Your task to perform on an android device: Open the phone app and click the voicemail tab. Image 0: 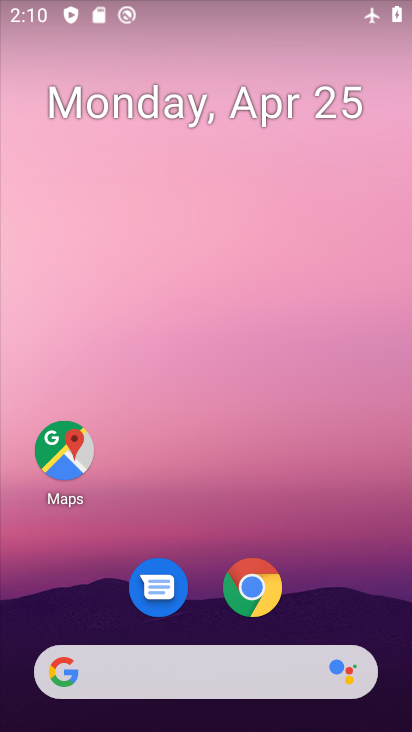
Step 0: drag from (328, 578) to (295, 161)
Your task to perform on an android device: Open the phone app and click the voicemail tab. Image 1: 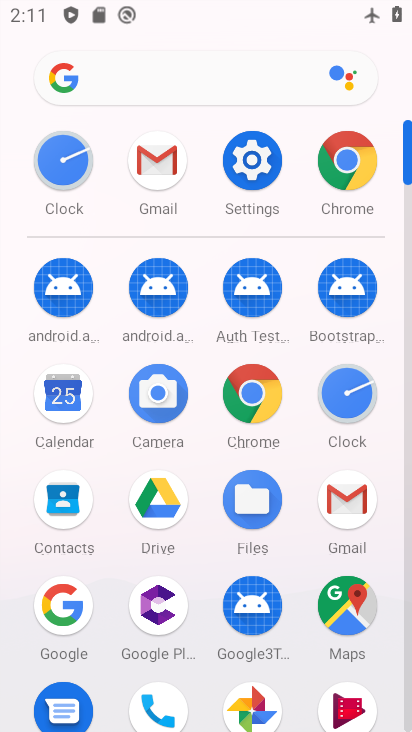
Step 1: click (167, 696)
Your task to perform on an android device: Open the phone app and click the voicemail tab. Image 2: 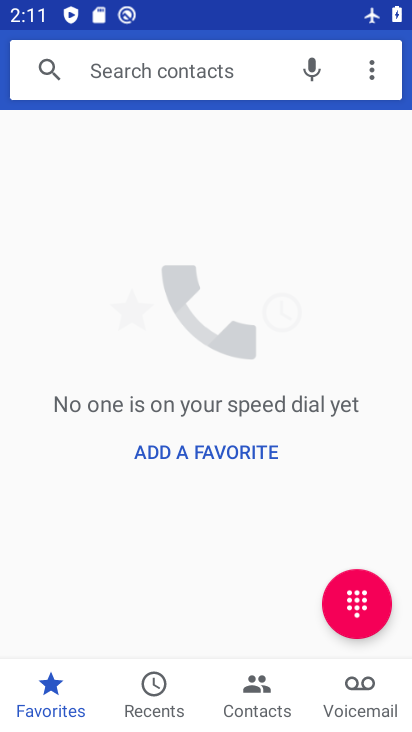
Step 2: click (340, 723)
Your task to perform on an android device: Open the phone app and click the voicemail tab. Image 3: 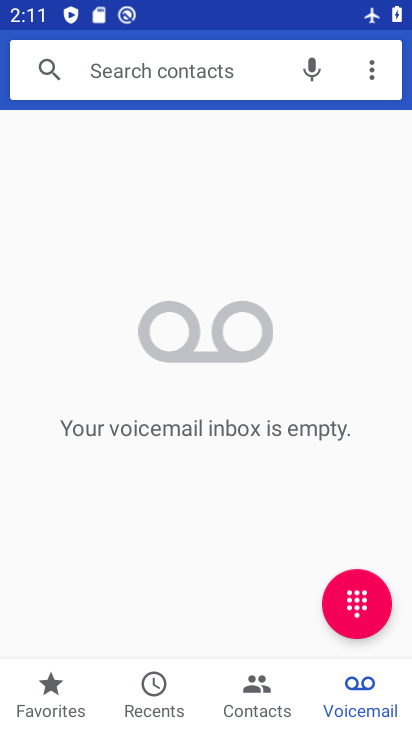
Step 3: task complete